Your task to perform on an android device: Open the phone app and click the voicemail tab. Image 0: 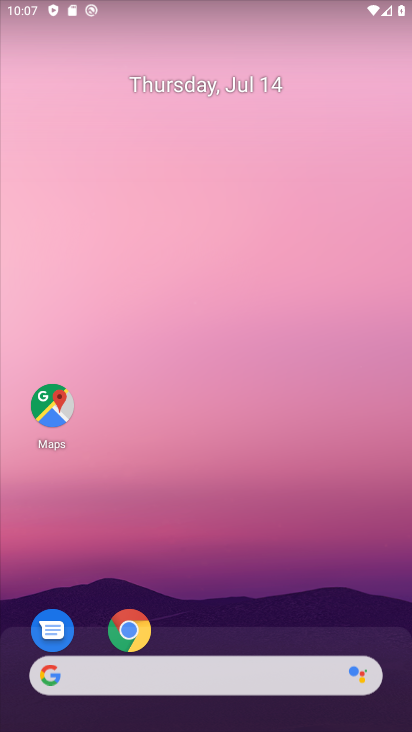
Step 0: drag from (198, 688) to (189, 233)
Your task to perform on an android device: Open the phone app and click the voicemail tab. Image 1: 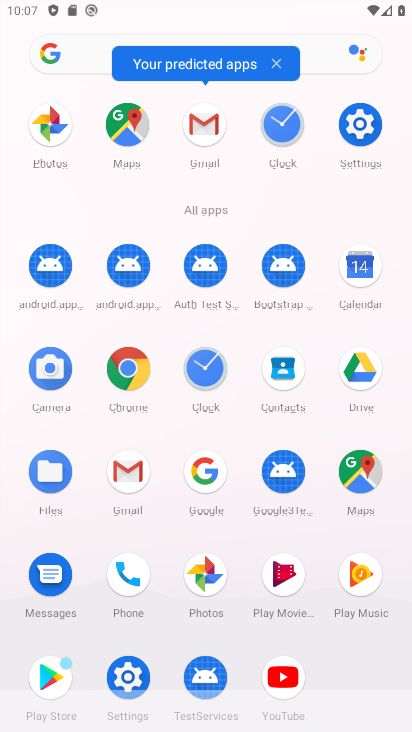
Step 1: click (133, 578)
Your task to perform on an android device: Open the phone app and click the voicemail tab. Image 2: 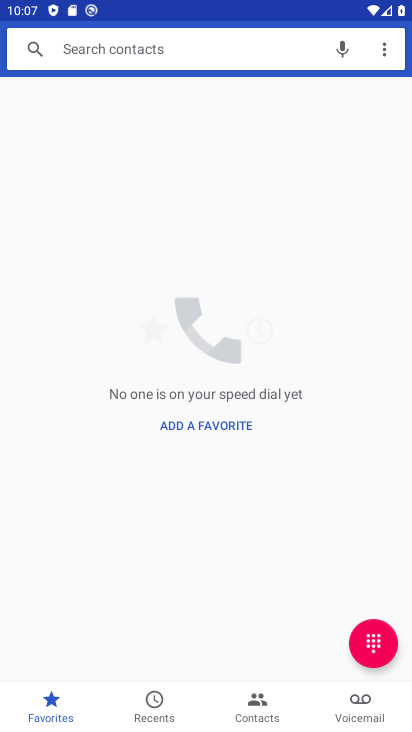
Step 2: click (362, 703)
Your task to perform on an android device: Open the phone app and click the voicemail tab. Image 3: 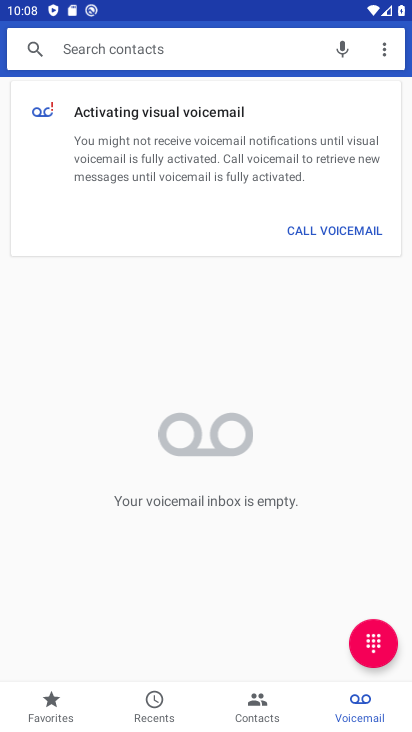
Step 3: task complete